Your task to perform on an android device: Open the web browser Image 0: 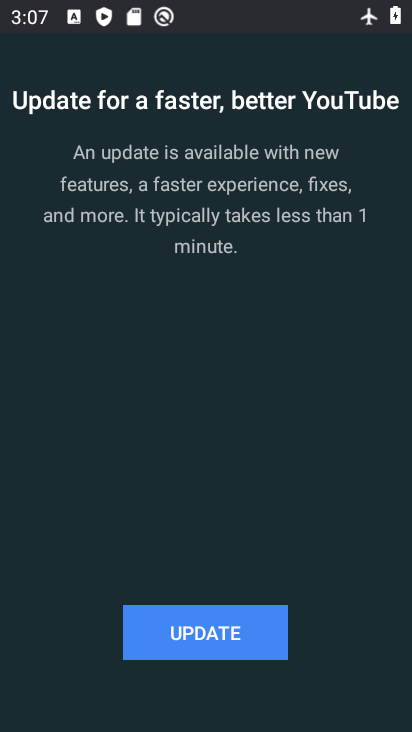
Step 0: press home button
Your task to perform on an android device: Open the web browser Image 1: 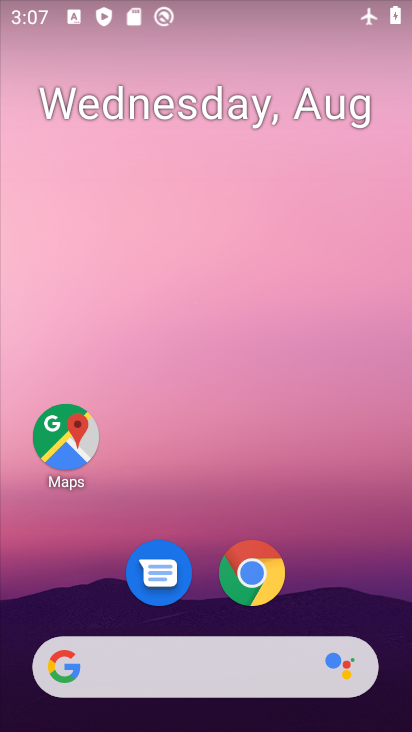
Step 1: click (230, 689)
Your task to perform on an android device: Open the web browser Image 2: 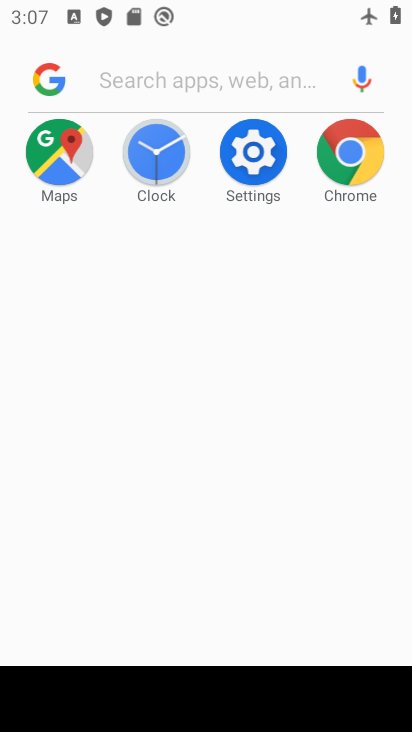
Step 2: task complete